Your task to perform on an android device: check storage Image 0: 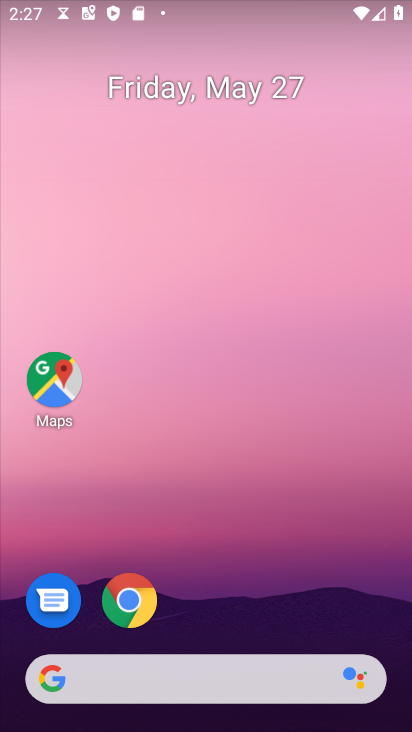
Step 0: drag from (284, 564) to (230, 4)
Your task to perform on an android device: check storage Image 1: 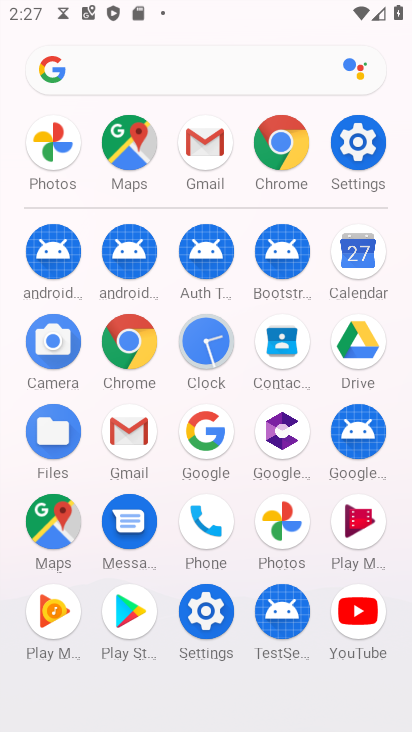
Step 1: click (199, 613)
Your task to perform on an android device: check storage Image 2: 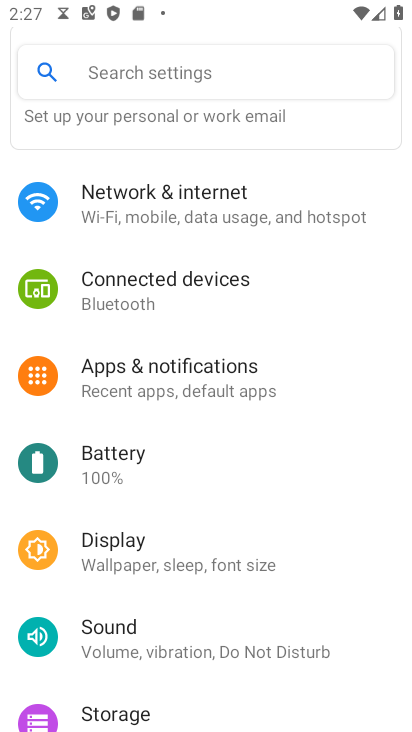
Step 2: drag from (281, 601) to (279, 196)
Your task to perform on an android device: check storage Image 3: 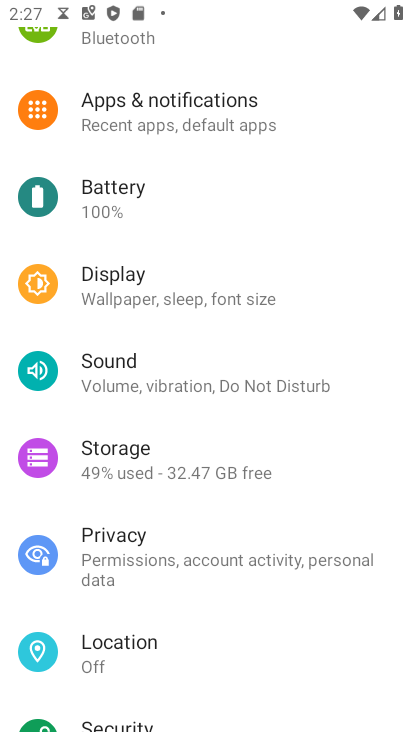
Step 3: click (167, 470)
Your task to perform on an android device: check storage Image 4: 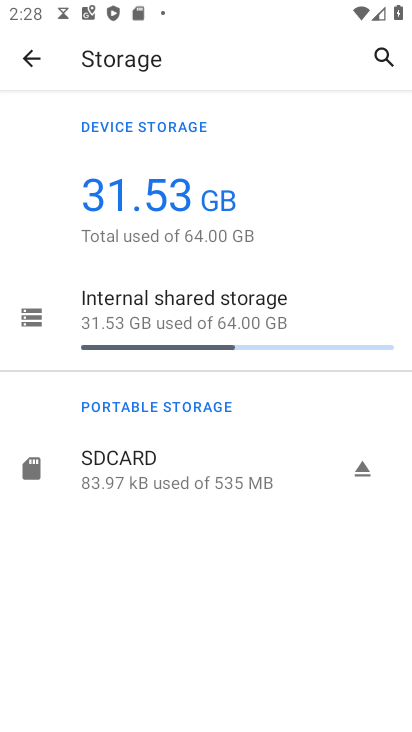
Step 4: task complete